Your task to perform on an android device: refresh tabs in the chrome app Image 0: 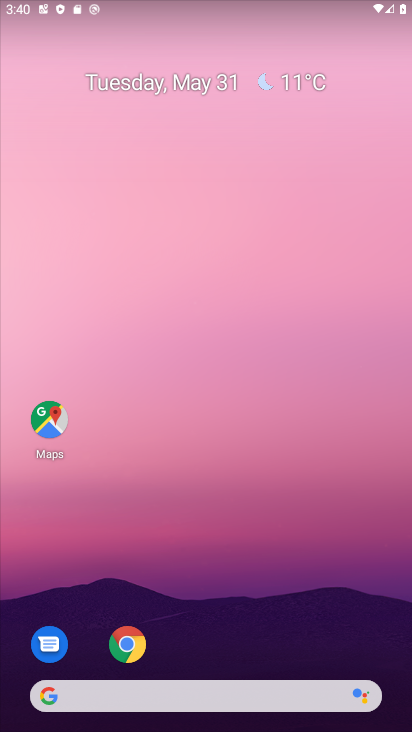
Step 0: click (127, 655)
Your task to perform on an android device: refresh tabs in the chrome app Image 1: 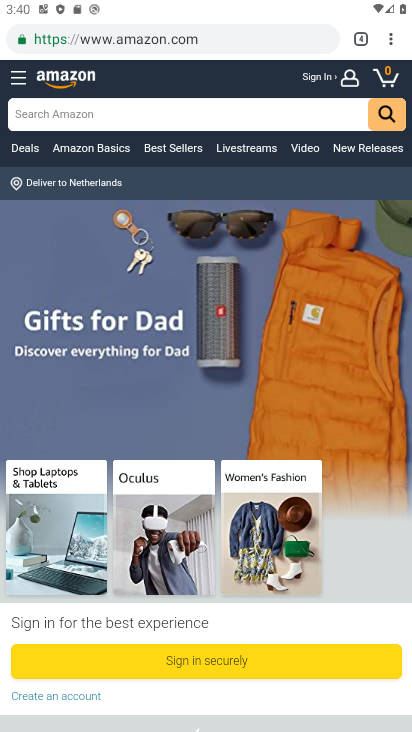
Step 1: click (393, 30)
Your task to perform on an android device: refresh tabs in the chrome app Image 2: 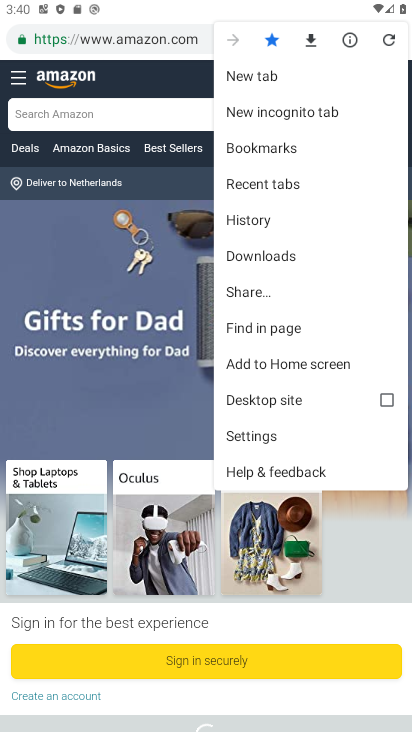
Step 2: click (377, 41)
Your task to perform on an android device: refresh tabs in the chrome app Image 3: 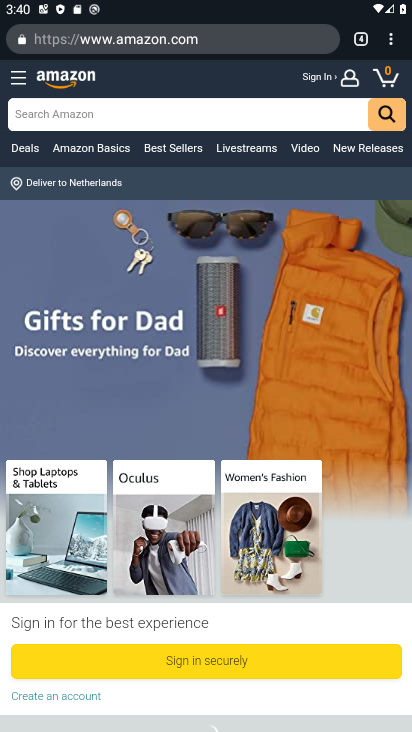
Step 3: task complete